Your task to perform on an android device: set default search engine in the chrome app Image 0: 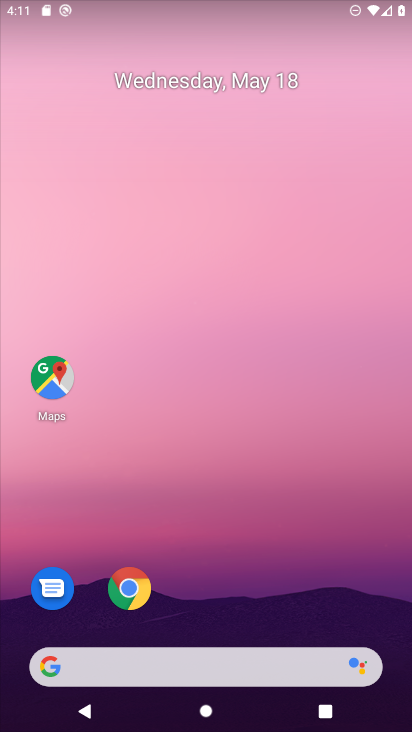
Step 0: click (133, 597)
Your task to perform on an android device: set default search engine in the chrome app Image 1: 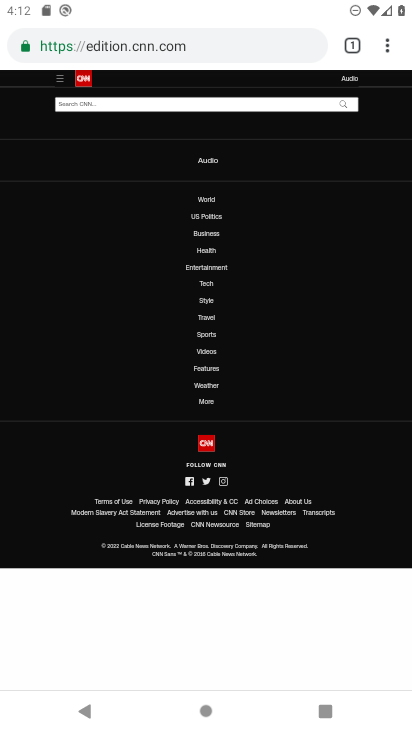
Step 1: click (381, 60)
Your task to perform on an android device: set default search engine in the chrome app Image 2: 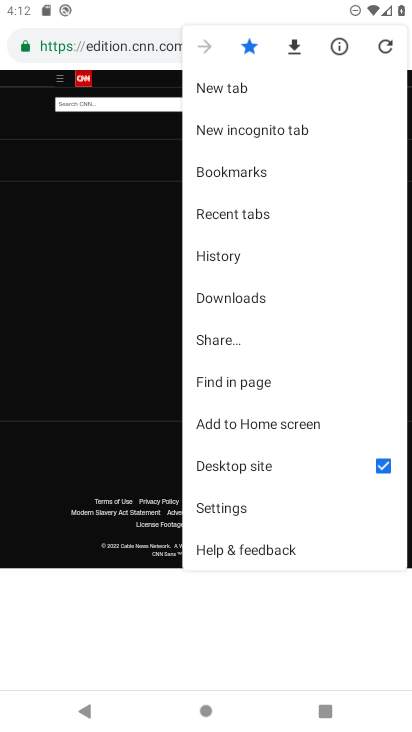
Step 2: click (230, 499)
Your task to perform on an android device: set default search engine in the chrome app Image 3: 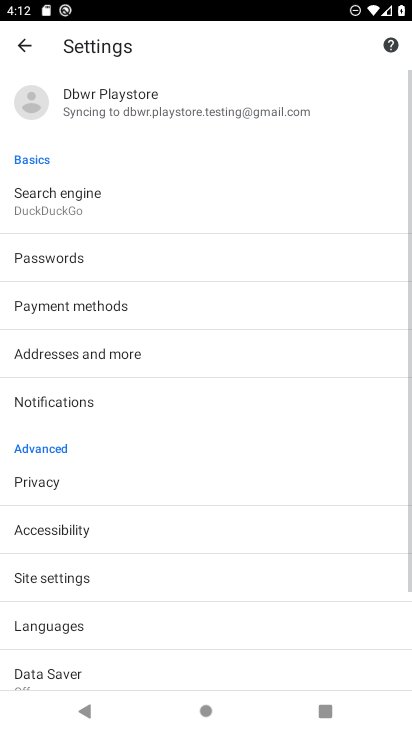
Step 3: click (100, 183)
Your task to perform on an android device: set default search engine in the chrome app Image 4: 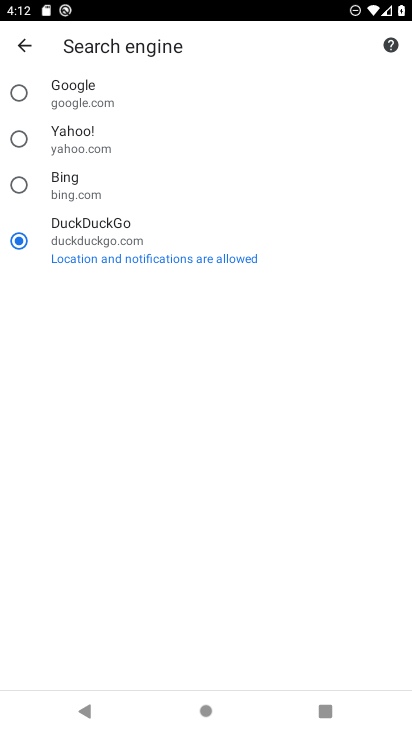
Step 4: click (71, 199)
Your task to perform on an android device: set default search engine in the chrome app Image 5: 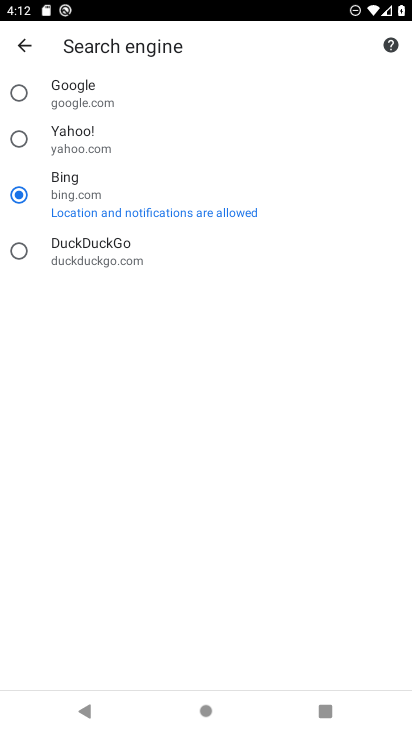
Step 5: task complete